Your task to perform on an android device: turn off javascript in the chrome app Image 0: 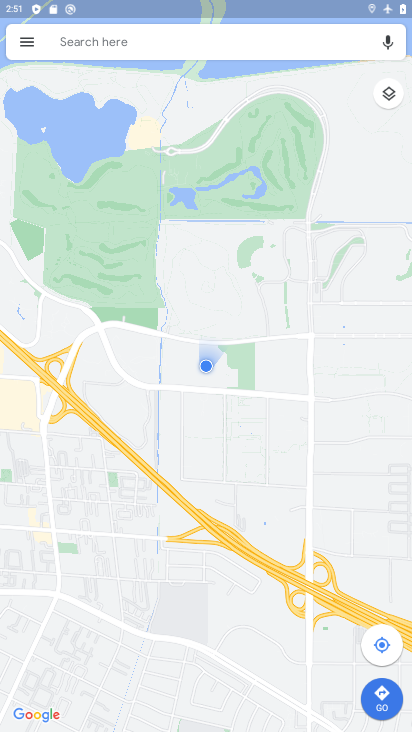
Step 0: press back button
Your task to perform on an android device: turn off javascript in the chrome app Image 1: 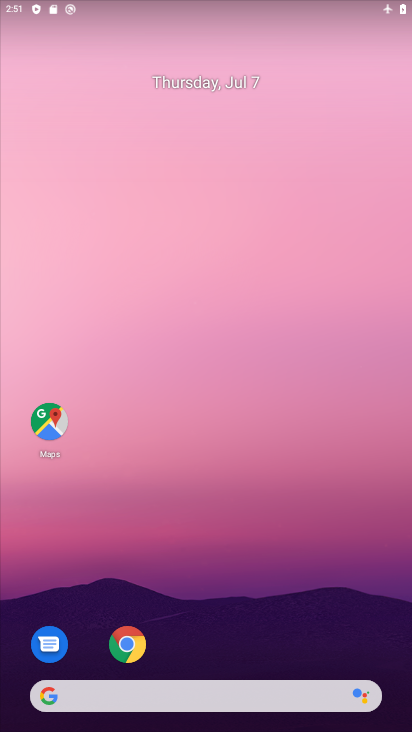
Step 1: drag from (232, 622) to (179, 153)
Your task to perform on an android device: turn off javascript in the chrome app Image 2: 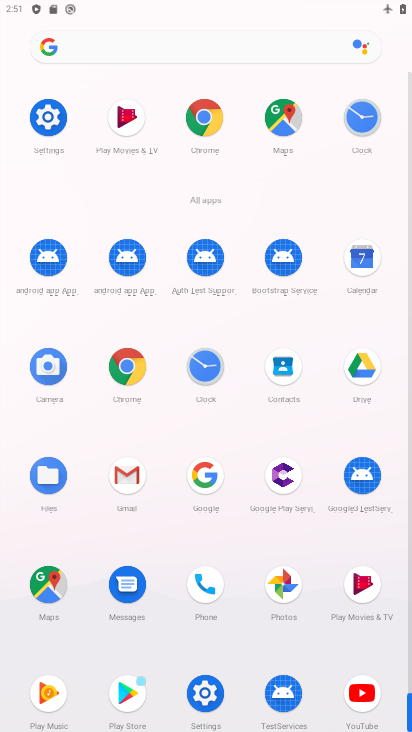
Step 2: click (204, 128)
Your task to perform on an android device: turn off javascript in the chrome app Image 3: 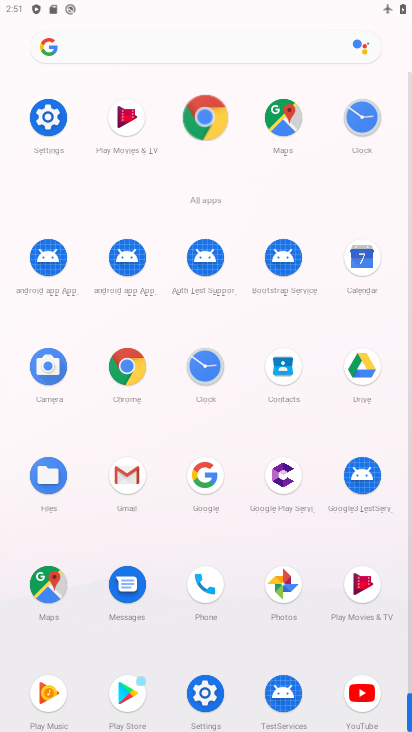
Step 3: click (204, 128)
Your task to perform on an android device: turn off javascript in the chrome app Image 4: 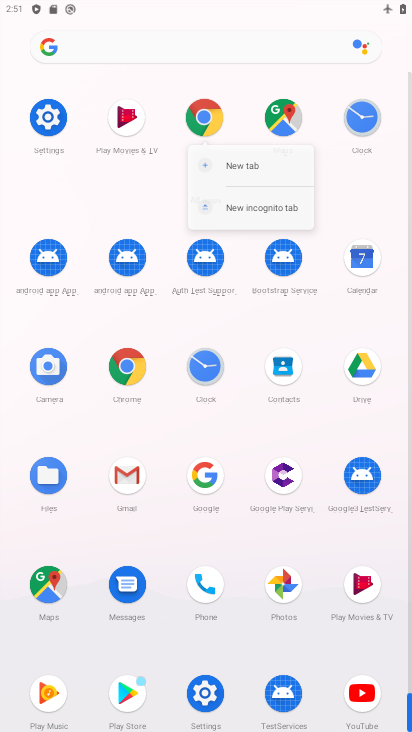
Step 4: click (204, 127)
Your task to perform on an android device: turn off javascript in the chrome app Image 5: 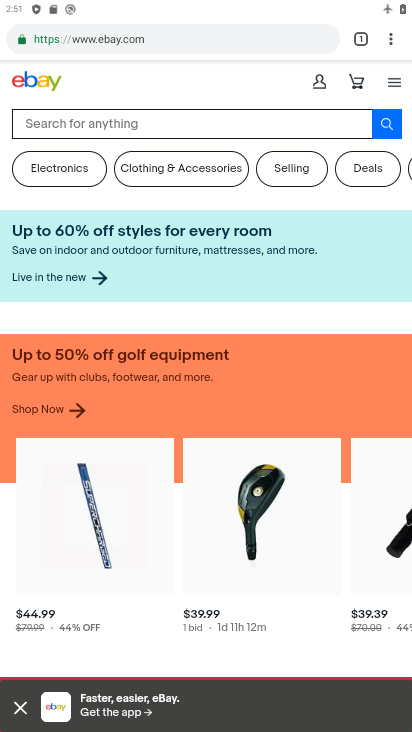
Step 5: drag from (386, 44) to (232, 428)
Your task to perform on an android device: turn off javascript in the chrome app Image 6: 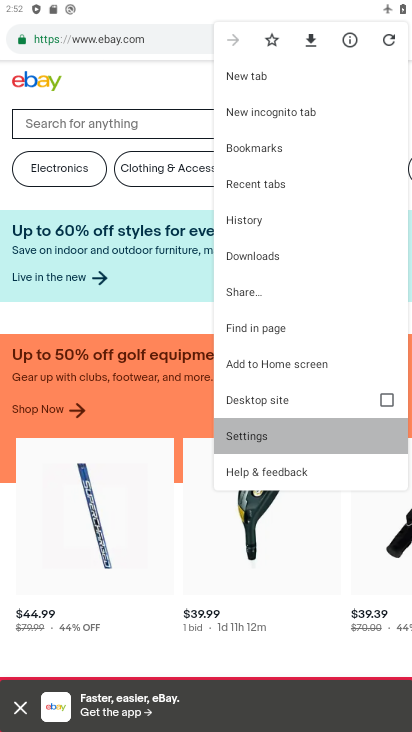
Step 6: click (230, 429)
Your task to perform on an android device: turn off javascript in the chrome app Image 7: 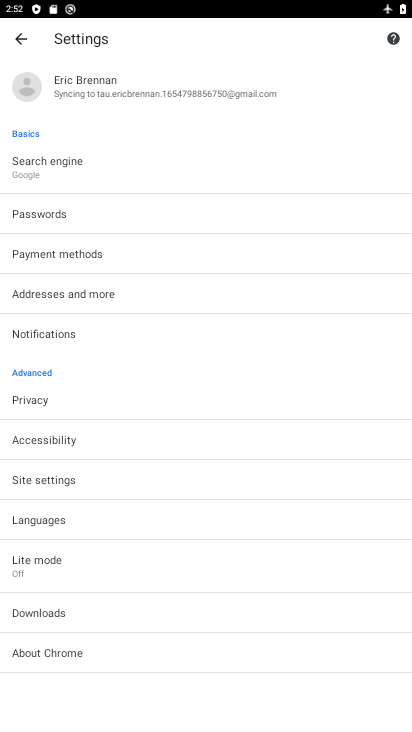
Step 7: click (40, 475)
Your task to perform on an android device: turn off javascript in the chrome app Image 8: 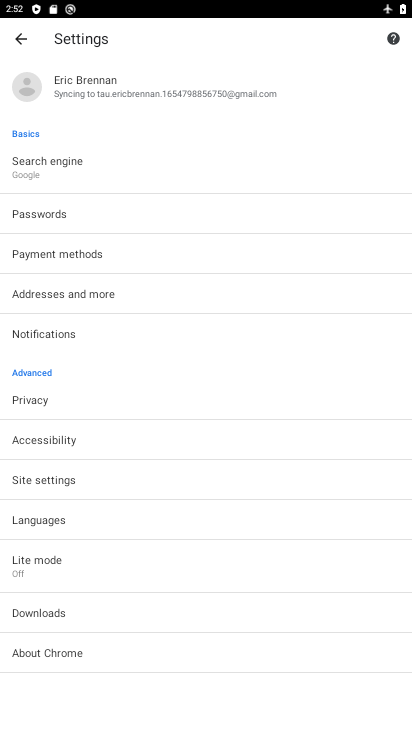
Step 8: click (40, 474)
Your task to perform on an android device: turn off javascript in the chrome app Image 9: 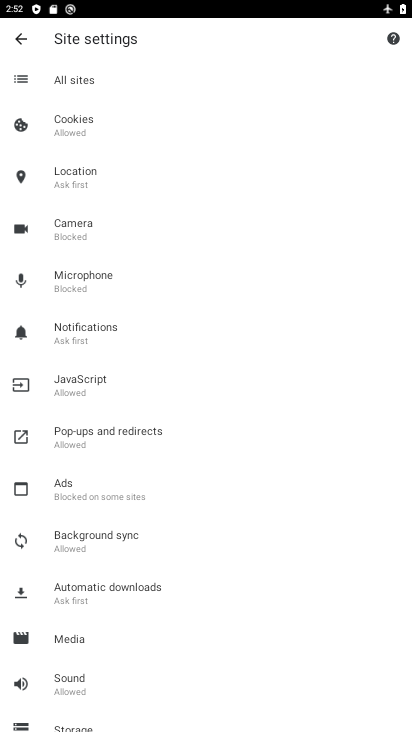
Step 9: click (78, 379)
Your task to perform on an android device: turn off javascript in the chrome app Image 10: 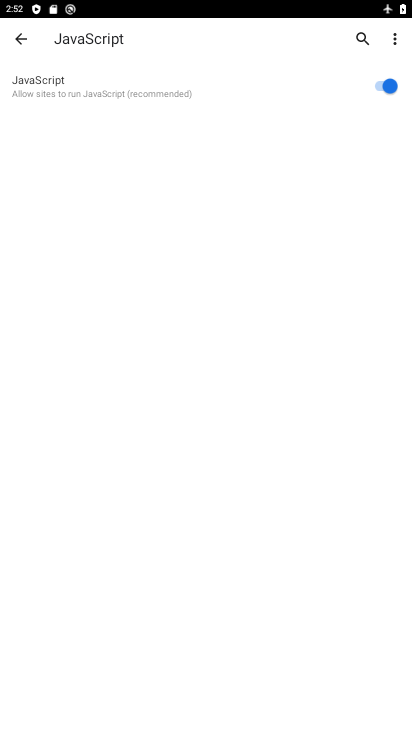
Step 10: click (388, 90)
Your task to perform on an android device: turn off javascript in the chrome app Image 11: 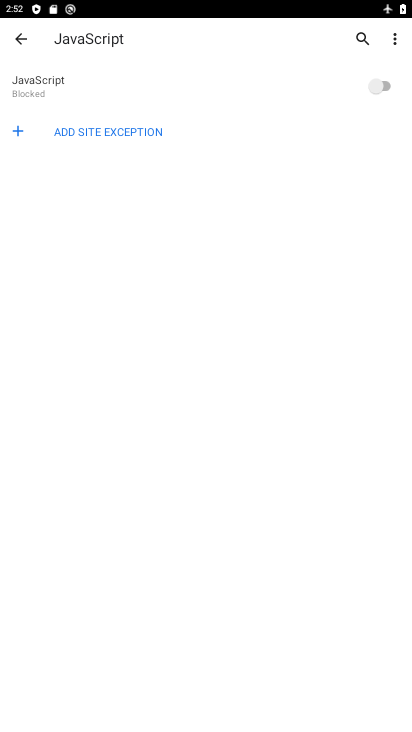
Step 11: task complete